Your task to perform on an android device: Search for Mexican restaurants on Maps Image 0: 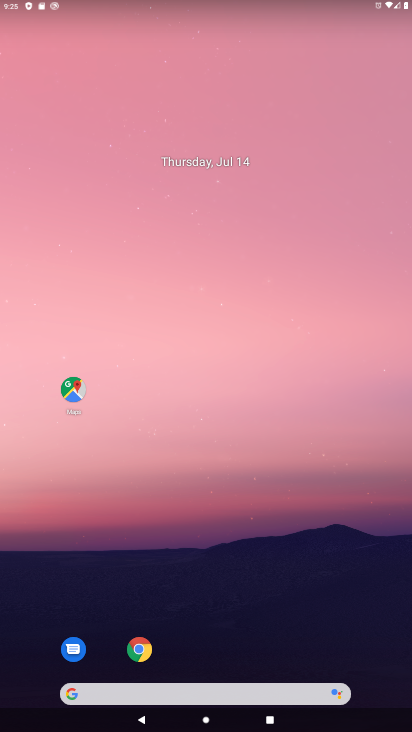
Step 0: drag from (321, 6) to (230, 633)
Your task to perform on an android device: Search for Mexican restaurants on Maps Image 1: 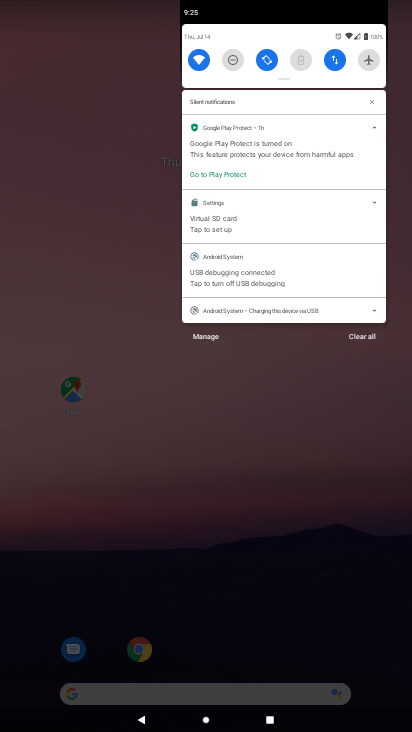
Step 1: click (106, 409)
Your task to perform on an android device: Search for Mexican restaurants on Maps Image 2: 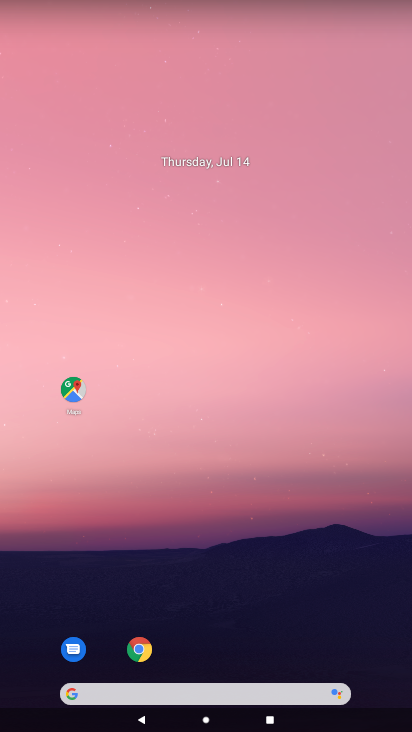
Step 2: drag from (217, 542) to (261, 134)
Your task to perform on an android device: Search for Mexican restaurants on Maps Image 3: 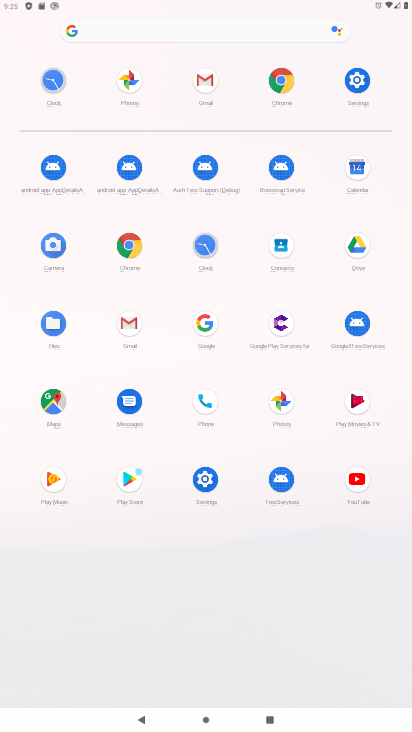
Step 3: click (72, 399)
Your task to perform on an android device: Search for Mexican restaurants on Maps Image 4: 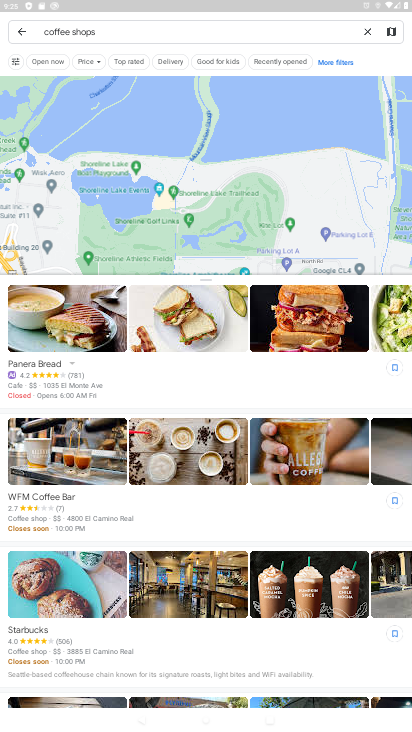
Step 4: click (367, 30)
Your task to perform on an android device: Search for Mexican restaurants on Maps Image 5: 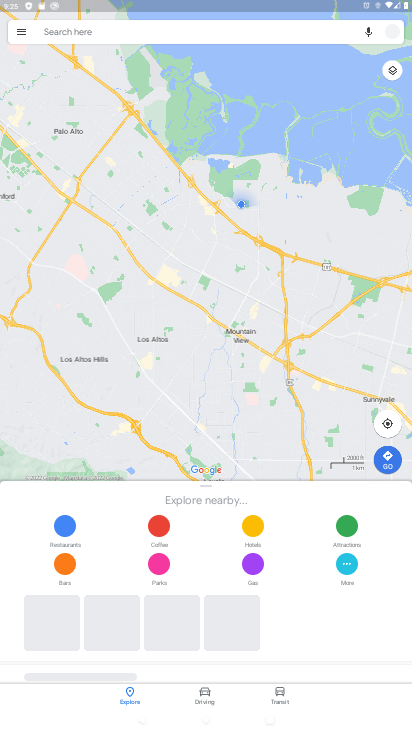
Step 5: click (152, 38)
Your task to perform on an android device: Search for Mexican restaurants on Maps Image 6: 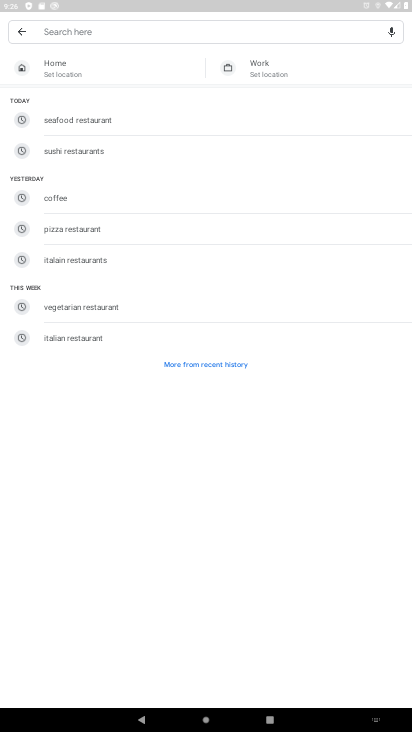
Step 6: type "mexican res"
Your task to perform on an android device: Search for Mexican restaurants on Maps Image 7: 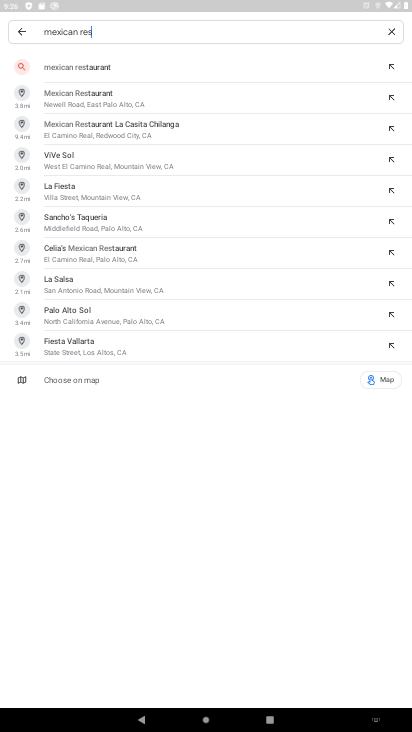
Step 7: click (335, 69)
Your task to perform on an android device: Search for Mexican restaurants on Maps Image 8: 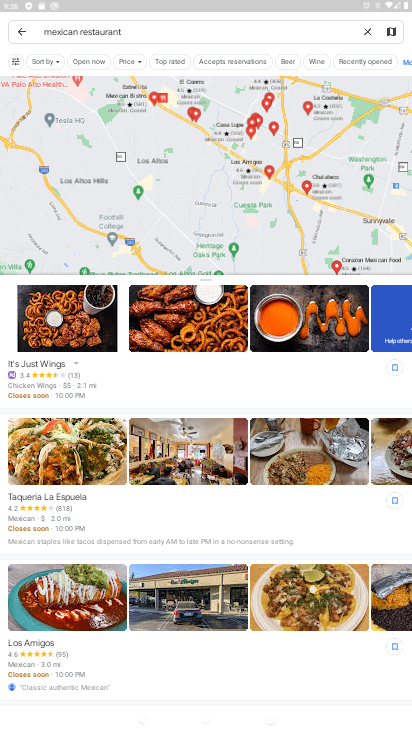
Step 8: task complete